Your task to perform on an android device: check battery use Image 0: 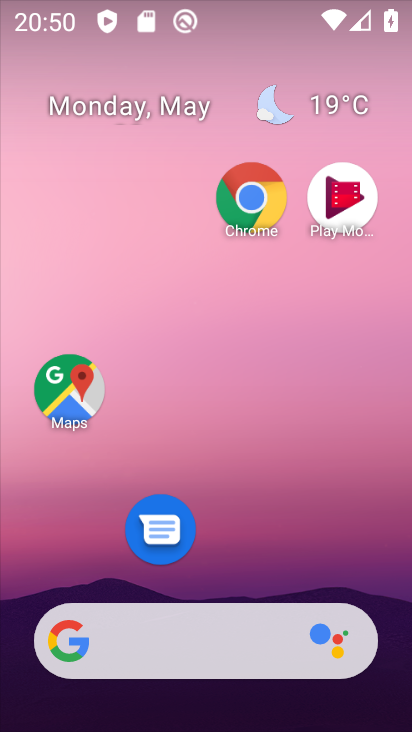
Step 0: drag from (219, 561) to (199, 16)
Your task to perform on an android device: check battery use Image 1: 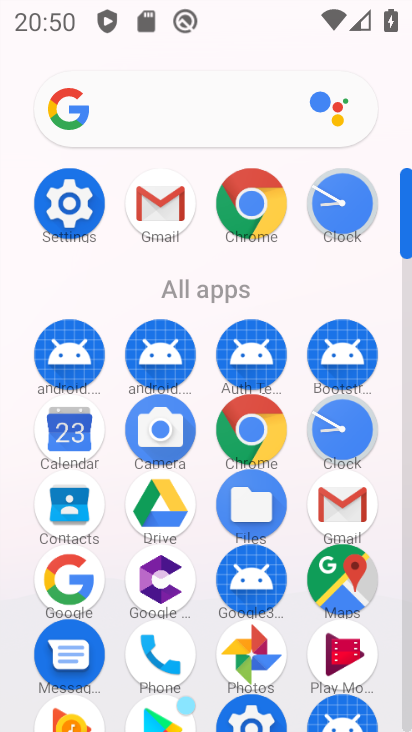
Step 1: click (76, 210)
Your task to perform on an android device: check battery use Image 2: 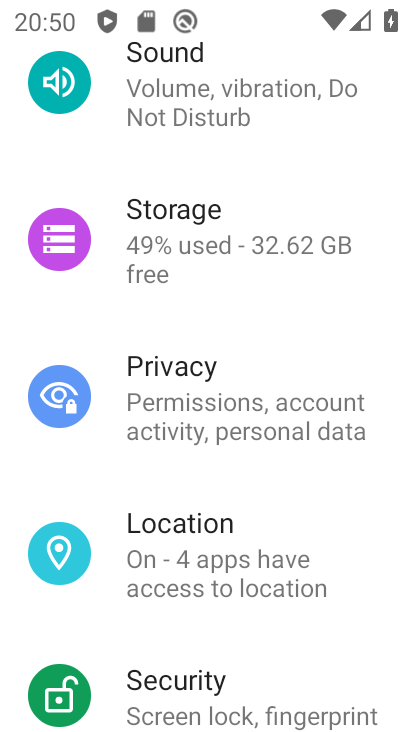
Step 2: drag from (210, 290) to (165, 509)
Your task to perform on an android device: check battery use Image 3: 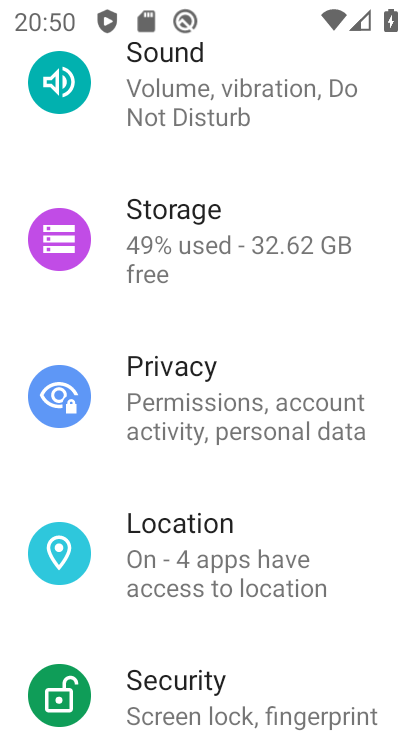
Step 3: drag from (201, 188) to (187, 494)
Your task to perform on an android device: check battery use Image 4: 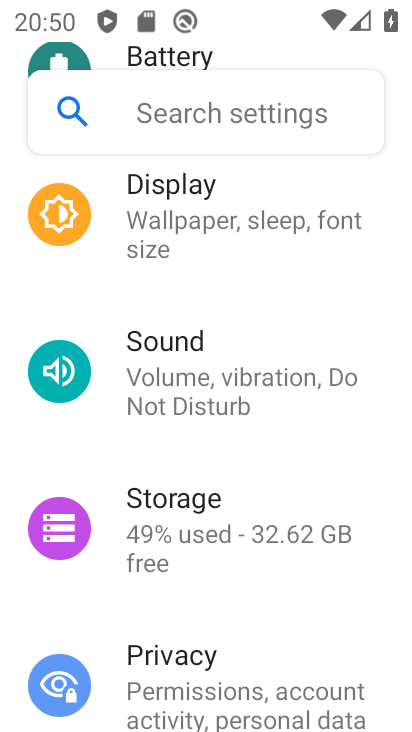
Step 4: drag from (207, 338) to (222, 585)
Your task to perform on an android device: check battery use Image 5: 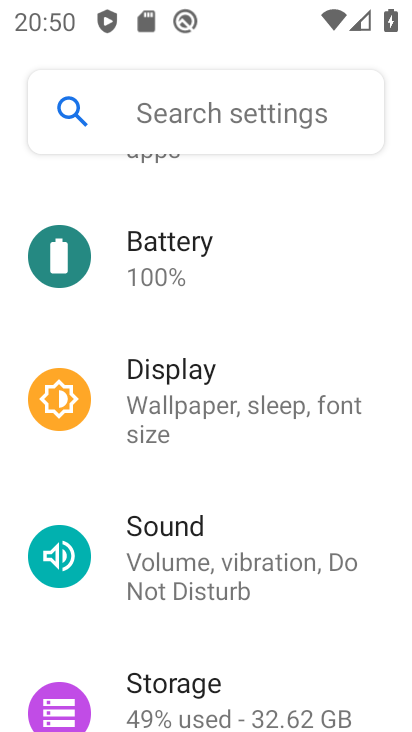
Step 5: click (167, 262)
Your task to perform on an android device: check battery use Image 6: 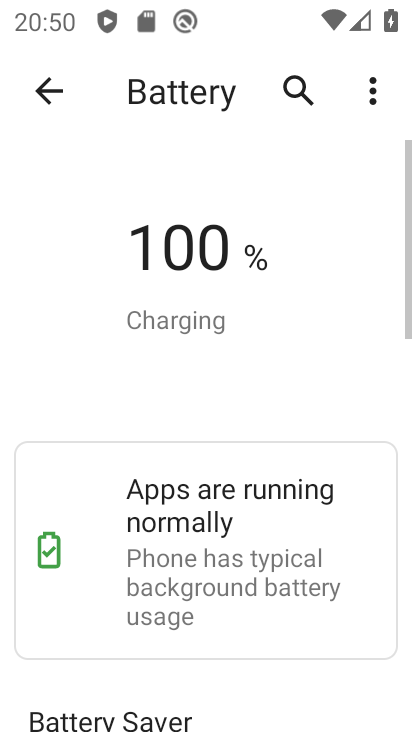
Step 6: task complete